Your task to perform on an android device: Go to sound settings Image 0: 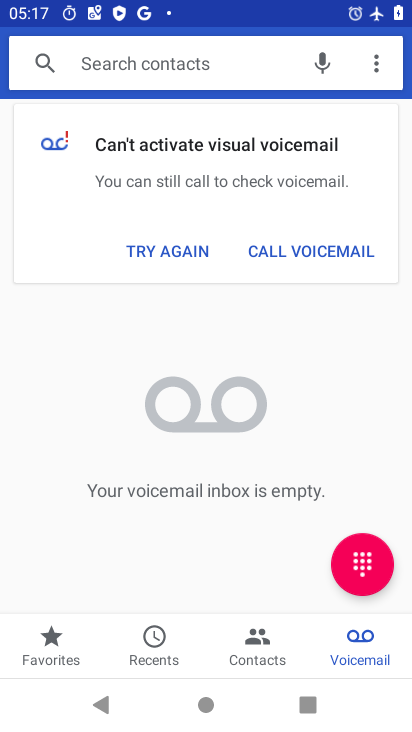
Step 0: press home button
Your task to perform on an android device: Go to sound settings Image 1: 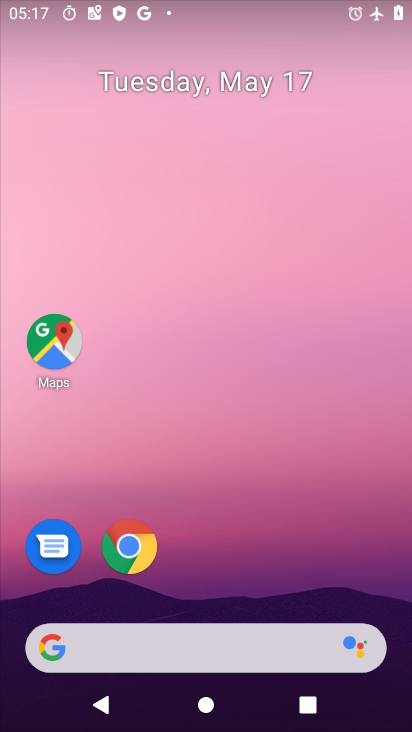
Step 1: drag from (392, 635) to (377, 243)
Your task to perform on an android device: Go to sound settings Image 2: 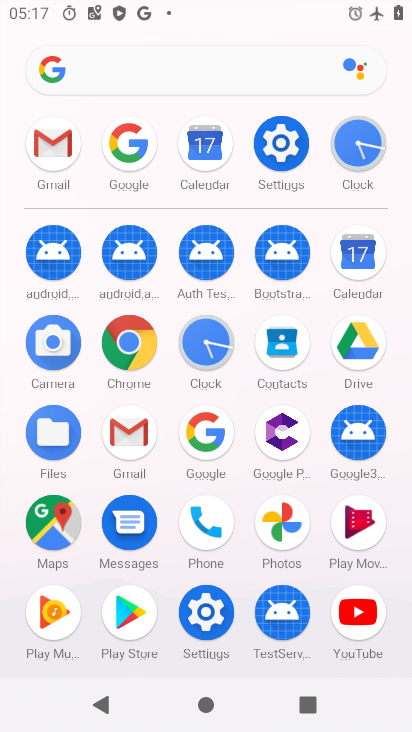
Step 2: click (278, 132)
Your task to perform on an android device: Go to sound settings Image 3: 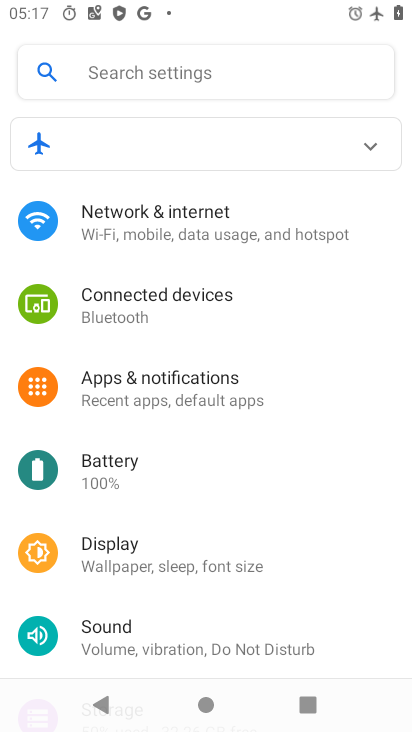
Step 3: click (109, 627)
Your task to perform on an android device: Go to sound settings Image 4: 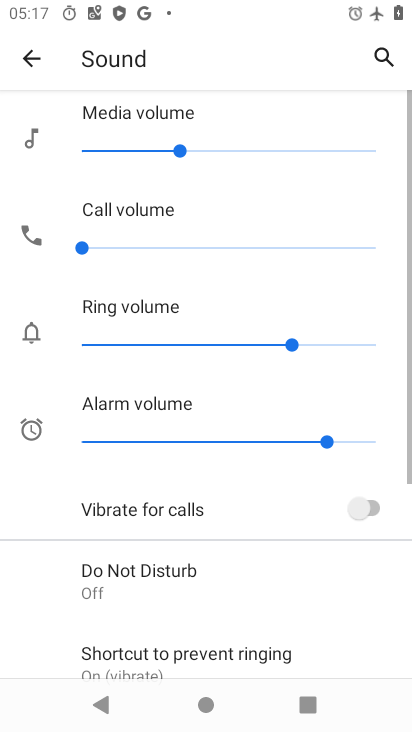
Step 4: task complete